Your task to perform on an android device: delete location history Image 0: 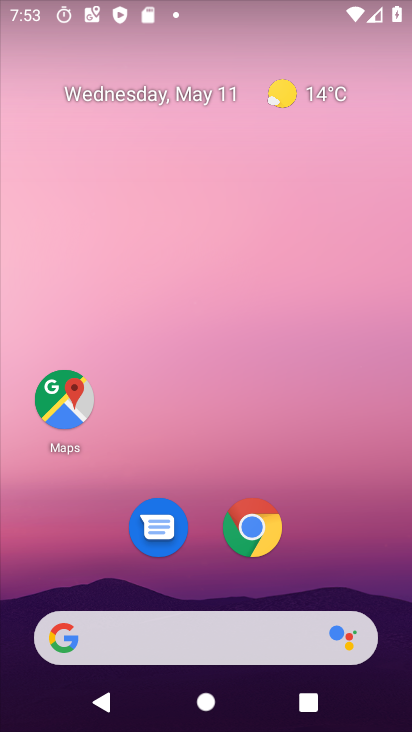
Step 0: drag from (162, 608) to (214, 261)
Your task to perform on an android device: delete location history Image 1: 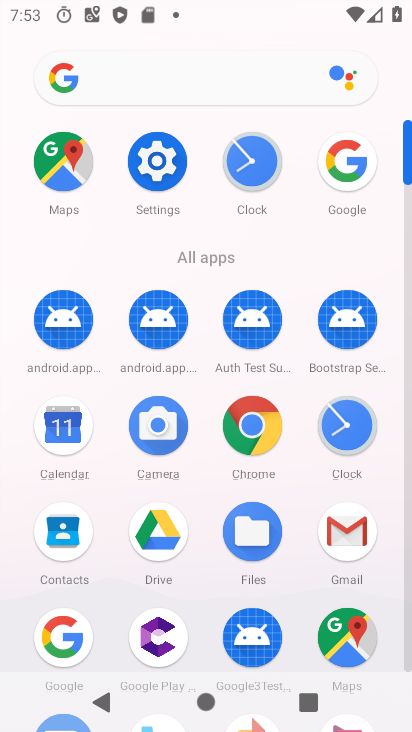
Step 1: click (171, 177)
Your task to perform on an android device: delete location history Image 2: 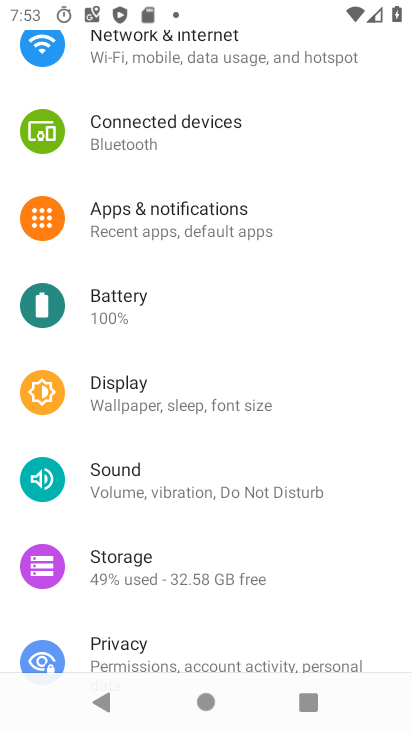
Step 2: drag from (218, 545) to (257, 340)
Your task to perform on an android device: delete location history Image 3: 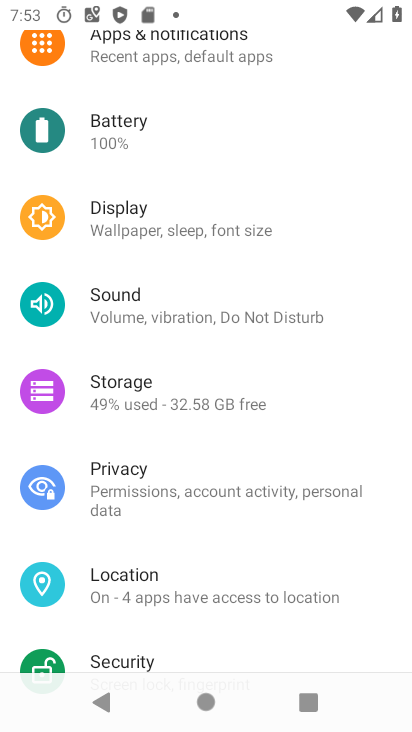
Step 3: click (201, 583)
Your task to perform on an android device: delete location history Image 4: 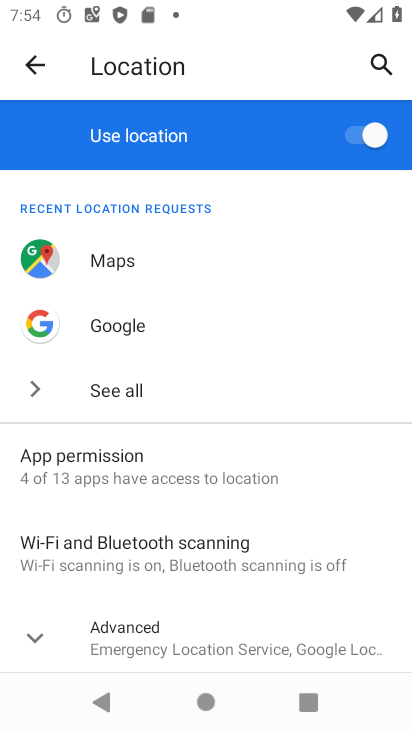
Step 4: click (160, 627)
Your task to perform on an android device: delete location history Image 5: 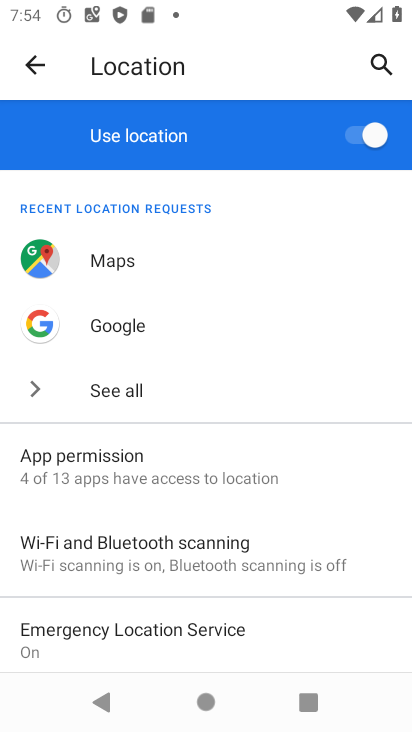
Step 5: drag from (211, 575) to (265, 316)
Your task to perform on an android device: delete location history Image 6: 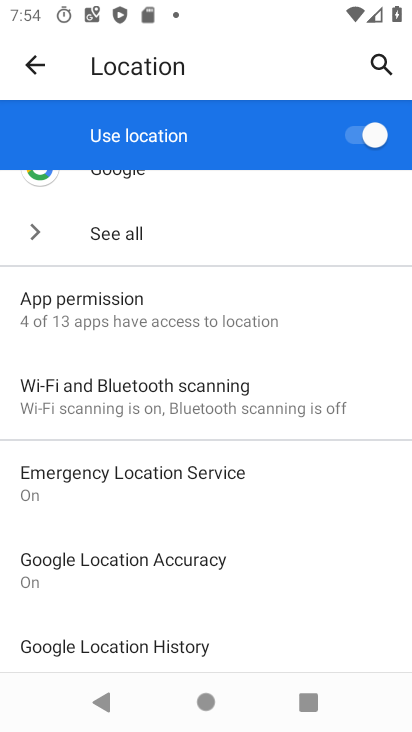
Step 6: drag from (164, 622) to (178, 522)
Your task to perform on an android device: delete location history Image 7: 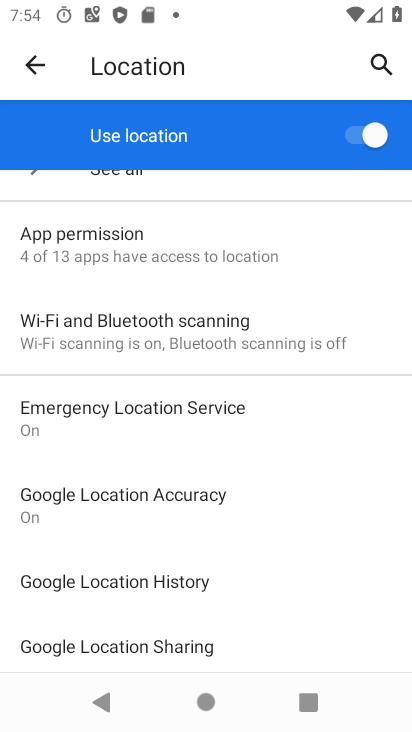
Step 7: click (165, 577)
Your task to perform on an android device: delete location history Image 8: 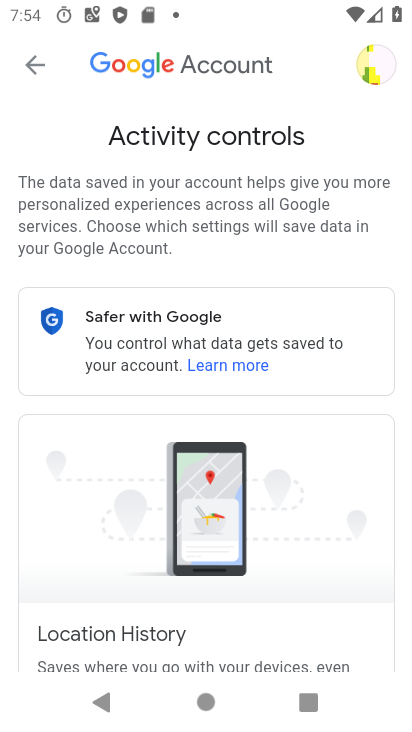
Step 8: drag from (294, 570) to (249, 415)
Your task to perform on an android device: delete location history Image 9: 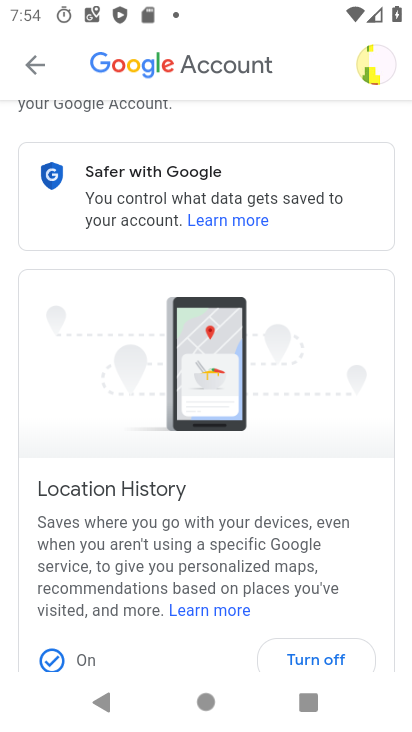
Step 9: drag from (291, 549) to (285, 420)
Your task to perform on an android device: delete location history Image 10: 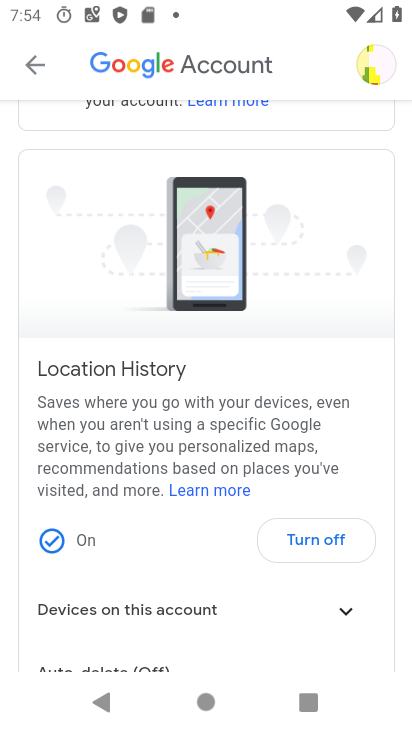
Step 10: drag from (259, 575) to (271, 321)
Your task to perform on an android device: delete location history Image 11: 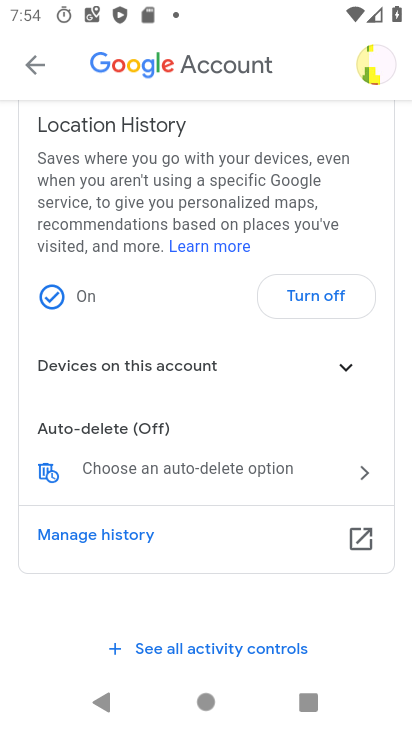
Step 11: click (244, 465)
Your task to perform on an android device: delete location history Image 12: 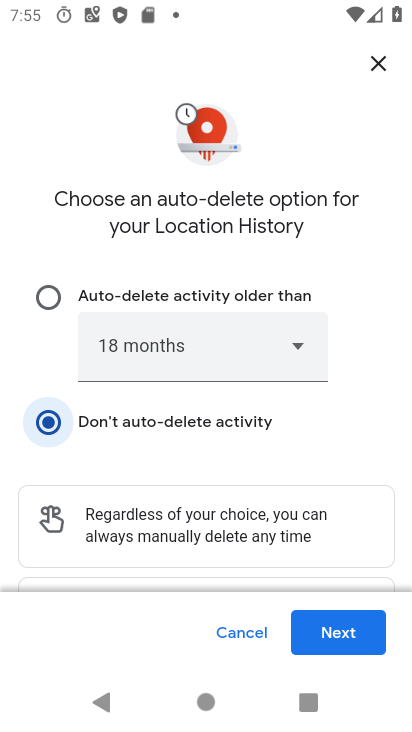
Step 12: click (372, 634)
Your task to perform on an android device: delete location history Image 13: 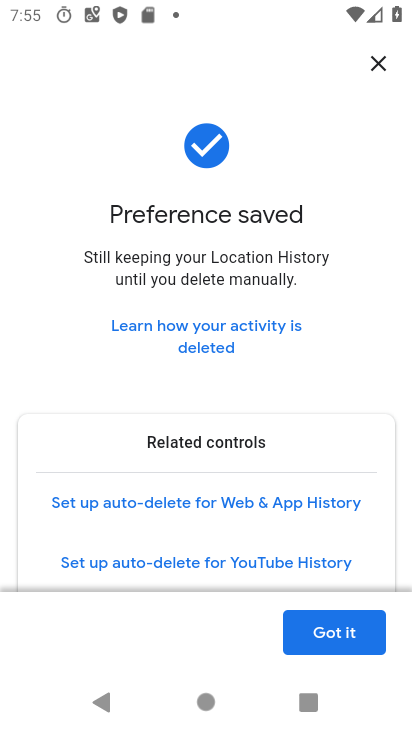
Step 13: click (372, 634)
Your task to perform on an android device: delete location history Image 14: 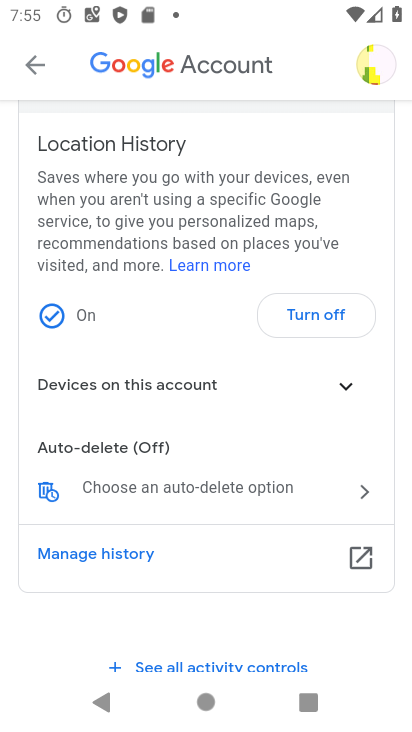
Step 14: task complete